Your task to perform on an android device: open a new tab in the chrome app Image 0: 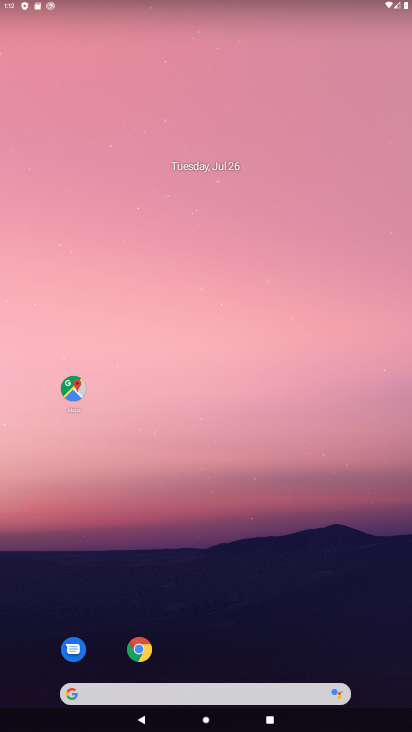
Step 0: press home button
Your task to perform on an android device: open a new tab in the chrome app Image 1: 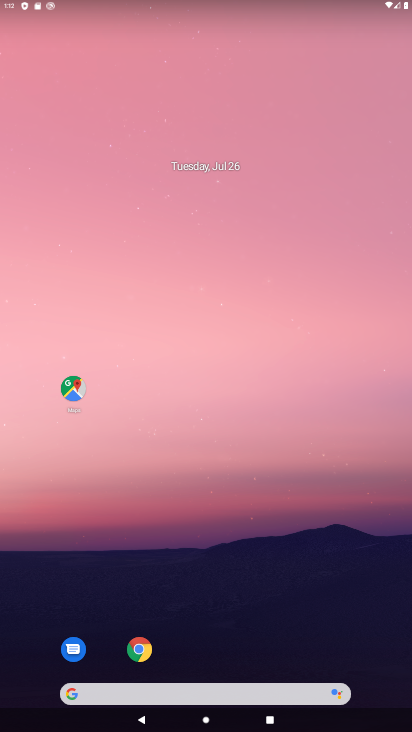
Step 1: click (138, 644)
Your task to perform on an android device: open a new tab in the chrome app Image 2: 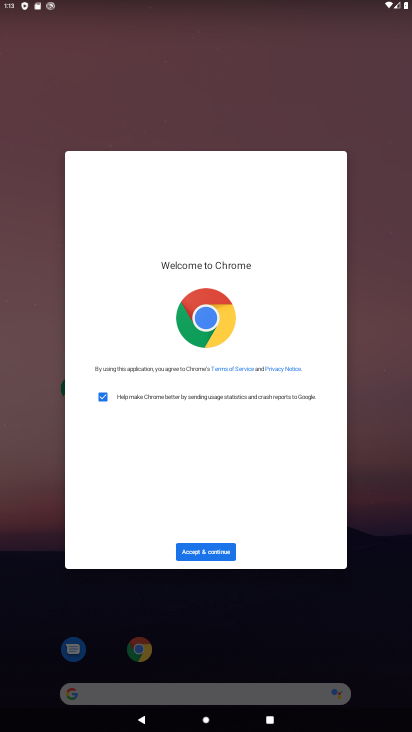
Step 2: click (207, 550)
Your task to perform on an android device: open a new tab in the chrome app Image 3: 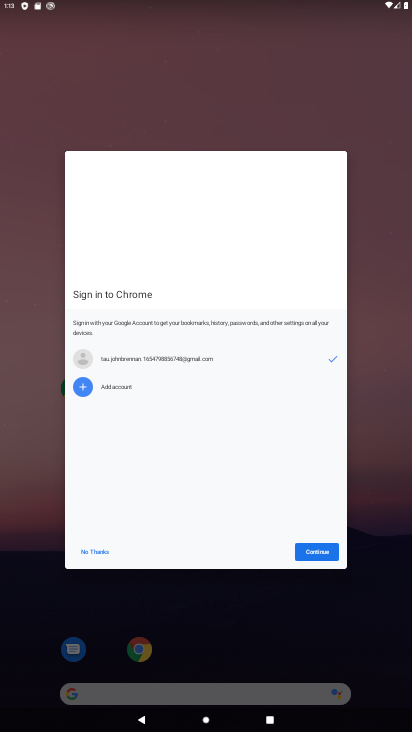
Step 3: click (312, 549)
Your task to perform on an android device: open a new tab in the chrome app Image 4: 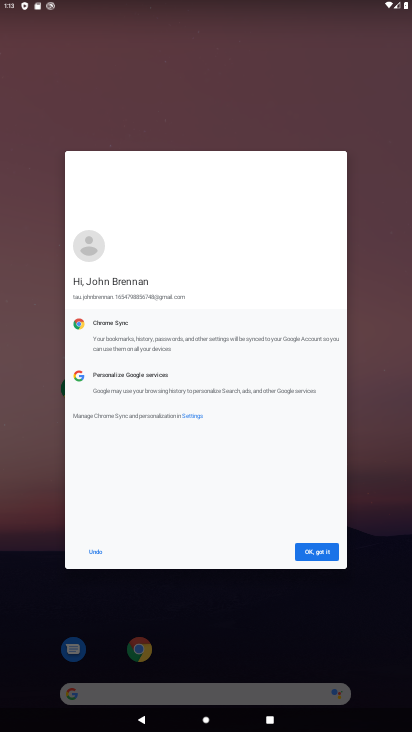
Step 4: click (317, 550)
Your task to perform on an android device: open a new tab in the chrome app Image 5: 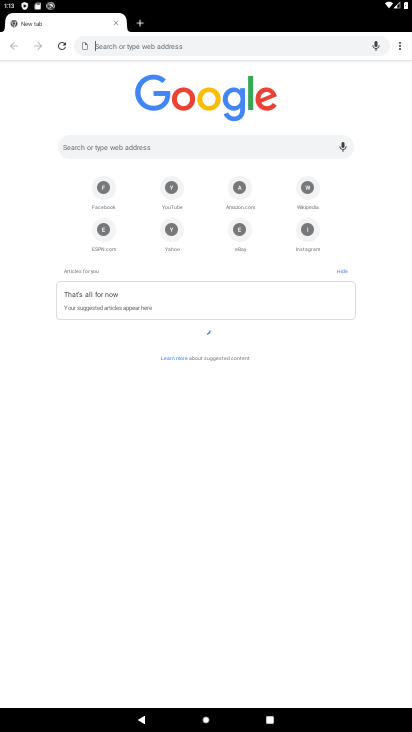
Step 5: click (137, 12)
Your task to perform on an android device: open a new tab in the chrome app Image 6: 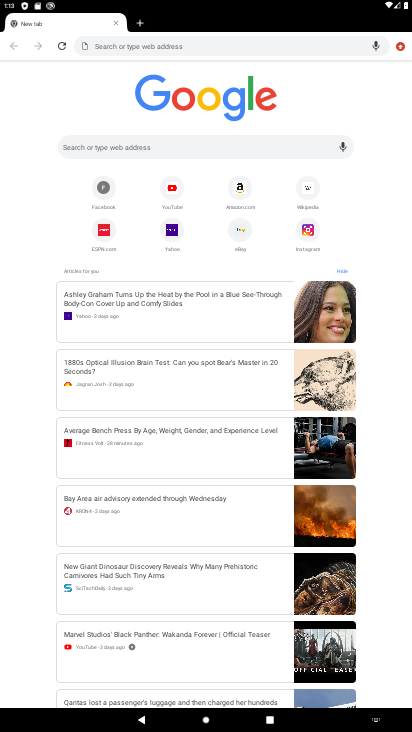
Step 6: click (138, 22)
Your task to perform on an android device: open a new tab in the chrome app Image 7: 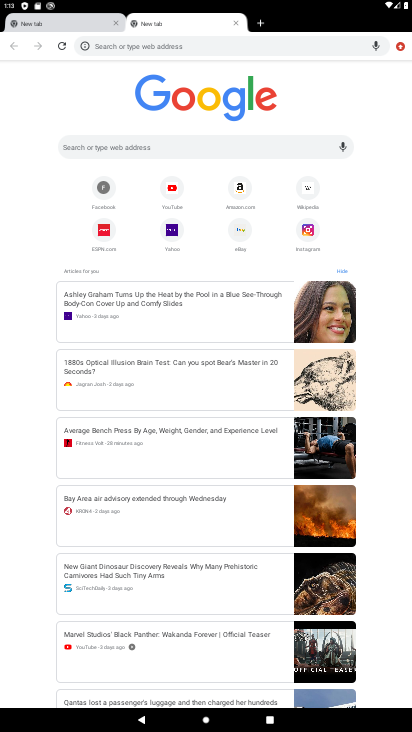
Step 7: task complete